Your task to perform on an android device: toggle improve location accuracy Image 0: 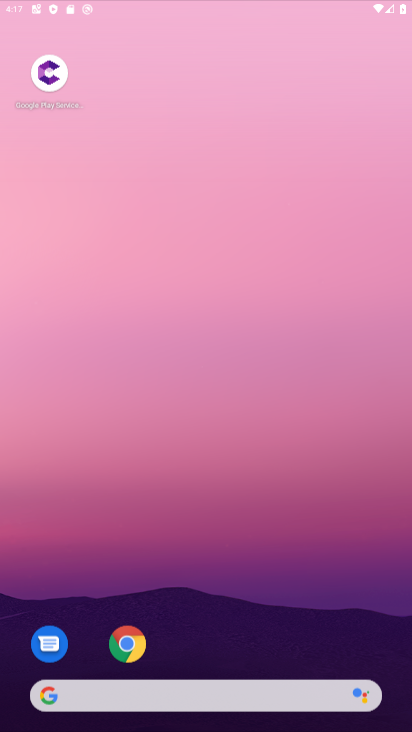
Step 0: click (210, 128)
Your task to perform on an android device: toggle improve location accuracy Image 1: 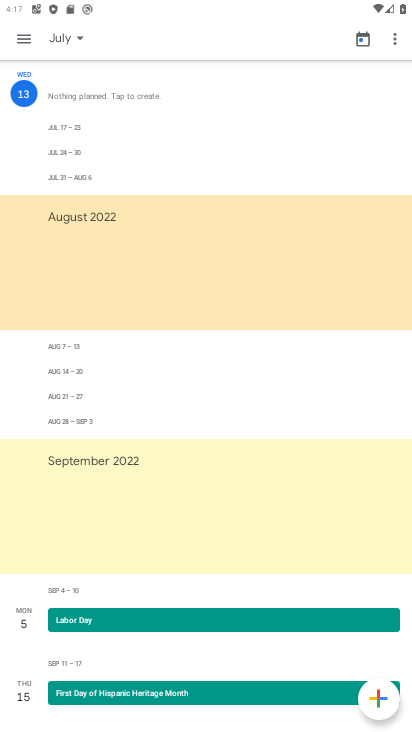
Step 1: press home button
Your task to perform on an android device: toggle improve location accuracy Image 2: 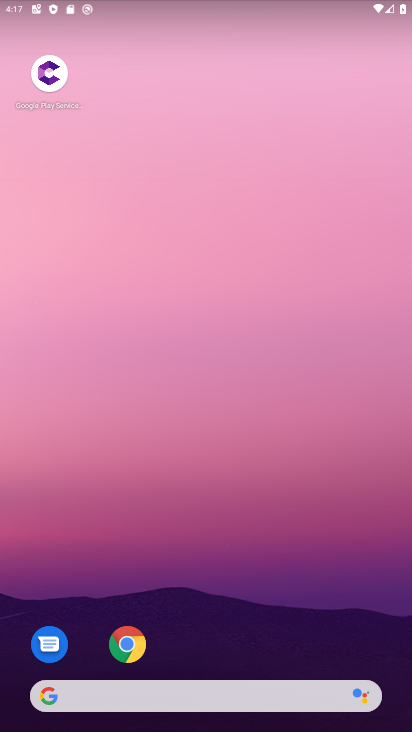
Step 2: drag from (204, 671) to (232, 42)
Your task to perform on an android device: toggle improve location accuracy Image 3: 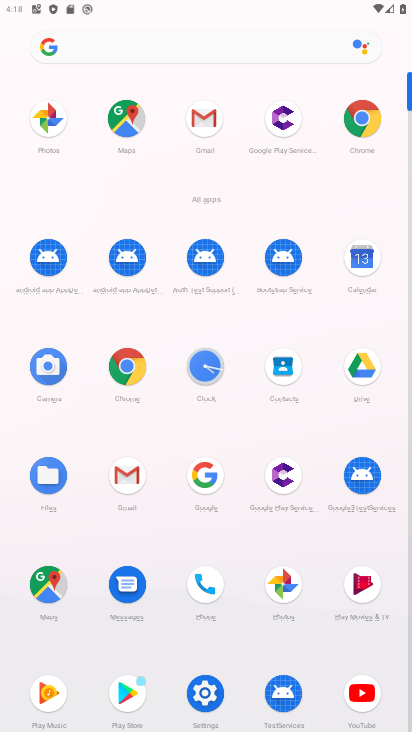
Step 3: click (196, 700)
Your task to perform on an android device: toggle improve location accuracy Image 4: 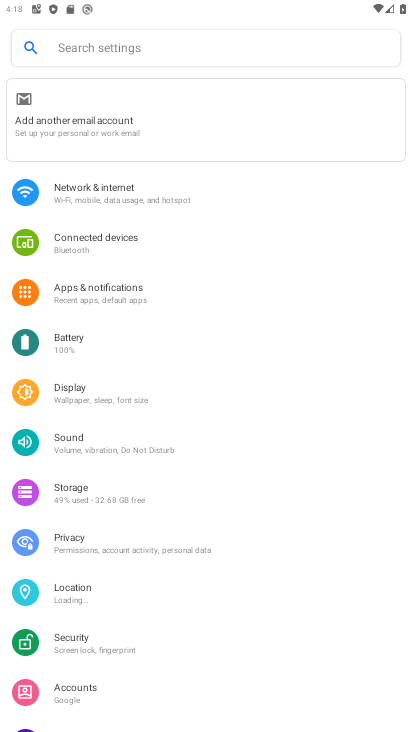
Step 4: drag from (273, 572) to (287, 201)
Your task to perform on an android device: toggle improve location accuracy Image 5: 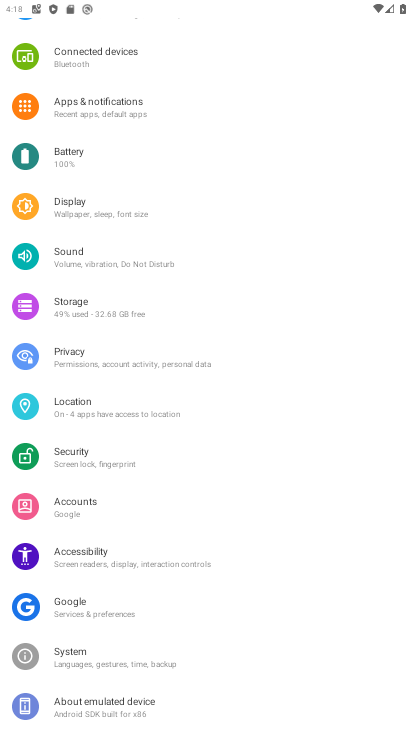
Step 5: drag from (110, 200) to (128, 385)
Your task to perform on an android device: toggle improve location accuracy Image 6: 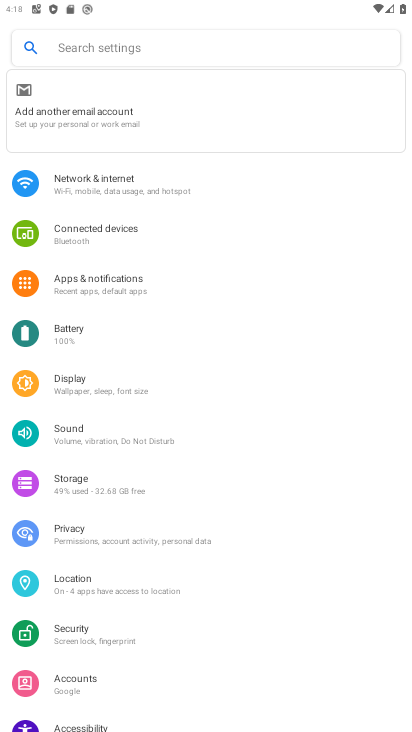
Step 6: click (107, 582)
Your task to perform on an android device: toggle improve location accuracy Image 7: 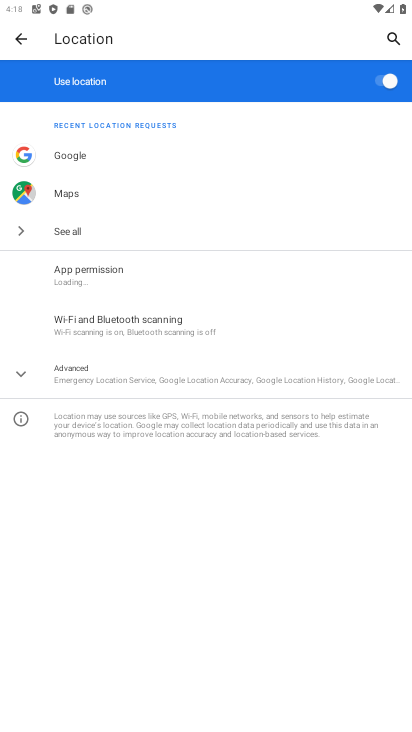
Step 7: click (82, 383)
Your task to perform on an android device: toggle improve location accuracy Image 8: 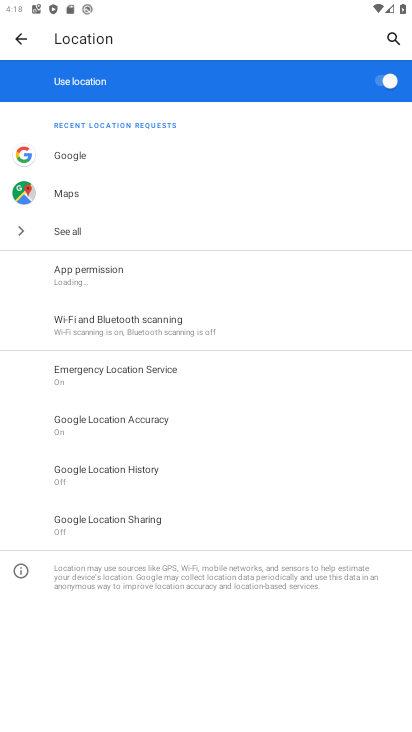
Step 8: click (139, 433)
Your task to perform on an android device: toggle improve location accuracy Image 9: 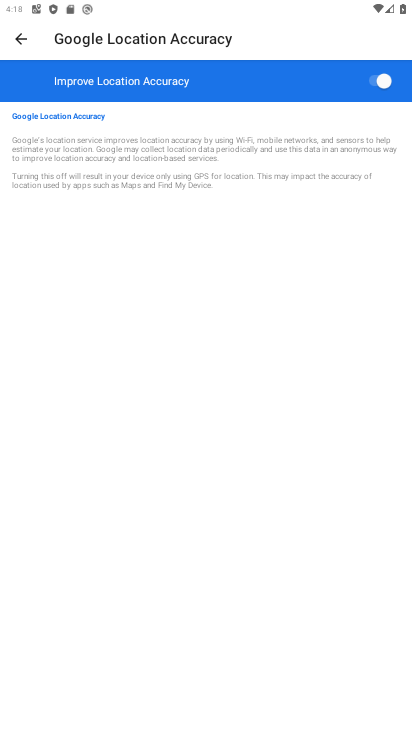
Step 9: click (375, 86)
Your task to perform on an android device: toggle improve location accuracy Image 10: 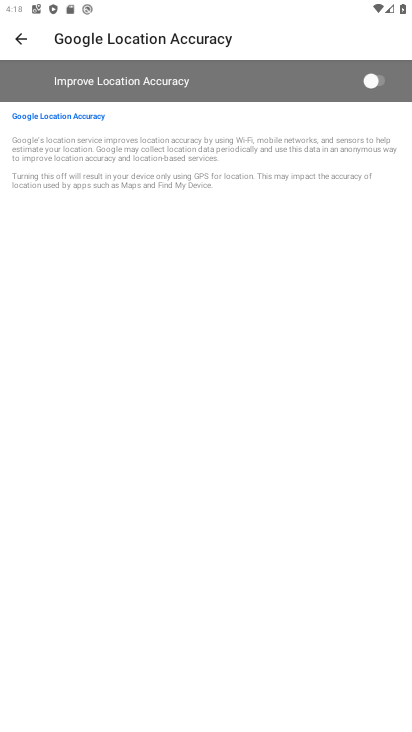
Step 10: task complete